Your task to perform on an android device: Add "logitech g pro" to the cart on bestbuy.com, then select checkout. Image 0: 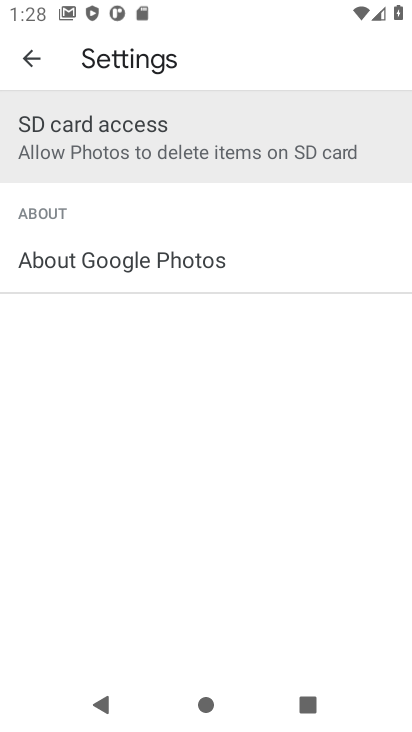
Step 0: task complete